Your task to perform on an android device: open app "ZOOM Cloud Meetings" (install if not already installed) and go to login screen Image 0: 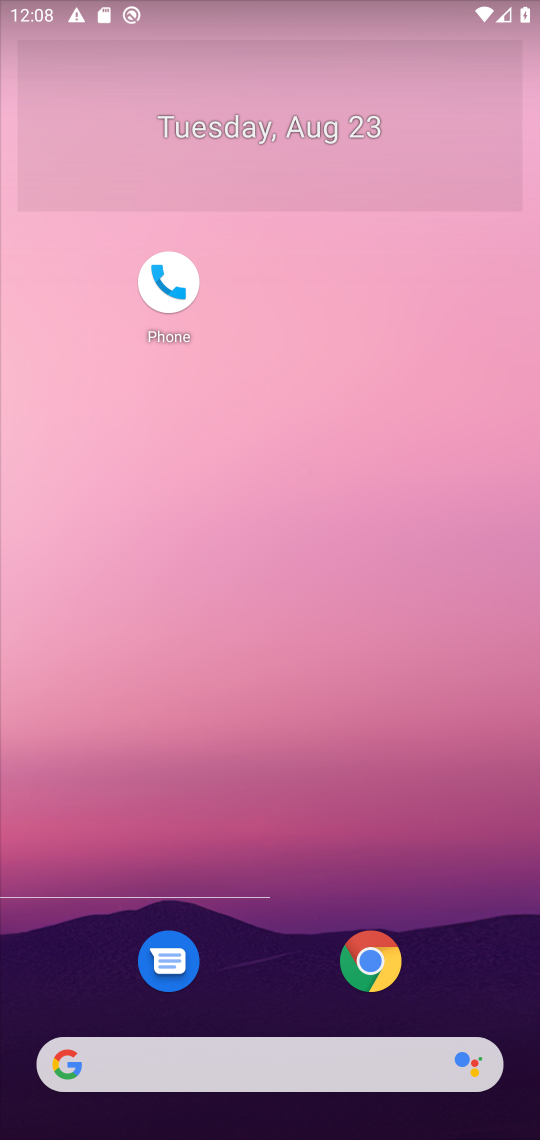
Step 0: drag from (291, 1012) to (431, 59)
Your task to perform on an android device: open app "ZOOM Cloud Meetings" (install if not already installed) and go to login screen Image 1: 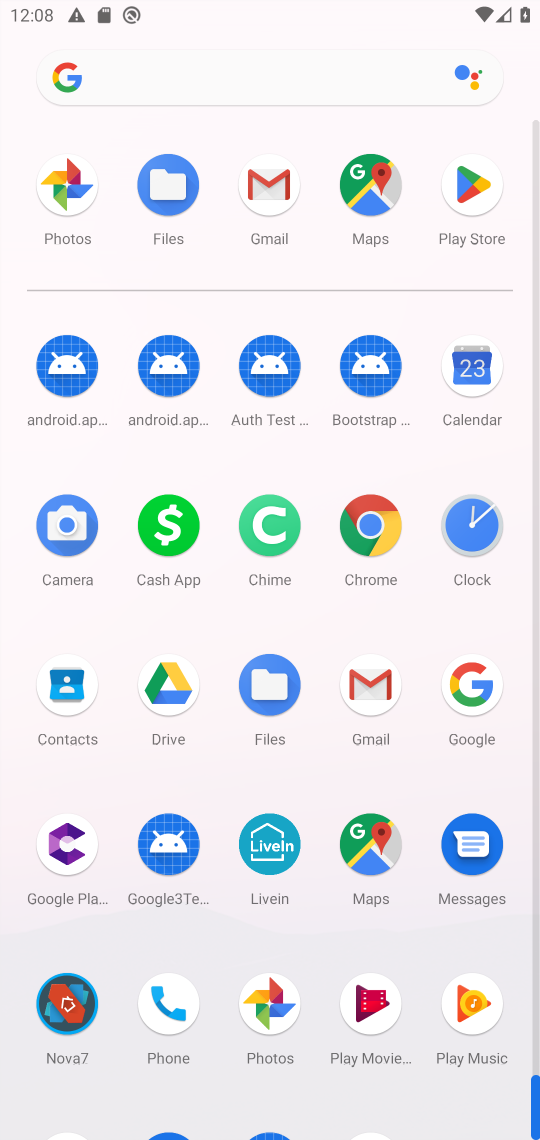
Step 1: click (477, 241)
Your task to perform on an android device: open app "ZOOM Cloud Meetings" (install if not already installed) and go to login screen Image 2: 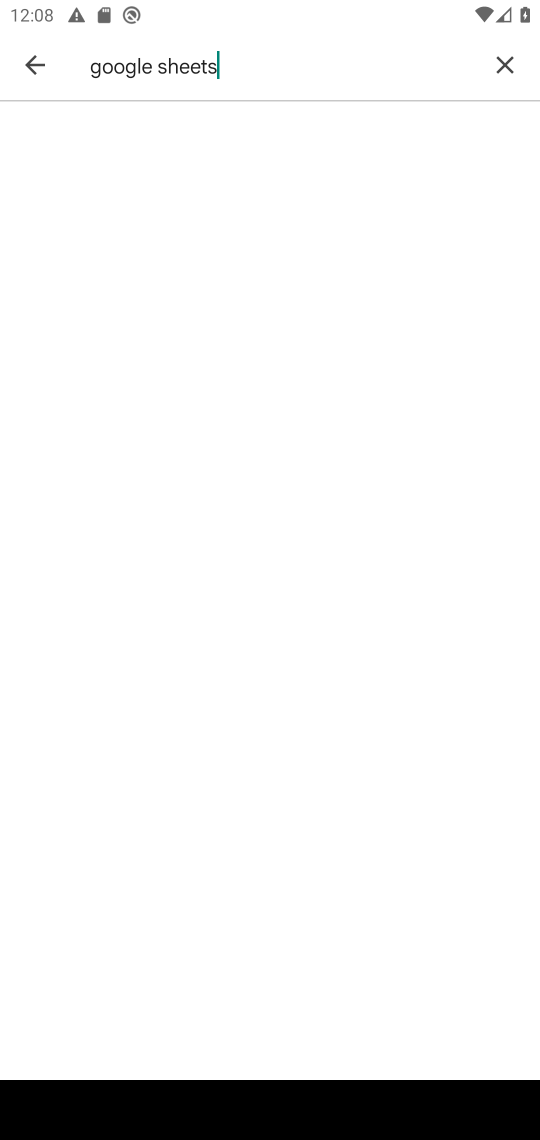
Step 2: click (491, 78)
Your task to perform on an android device: open app "ZOOM Cloud Meetings" (install if not already installed) and go to login screen Image 3: 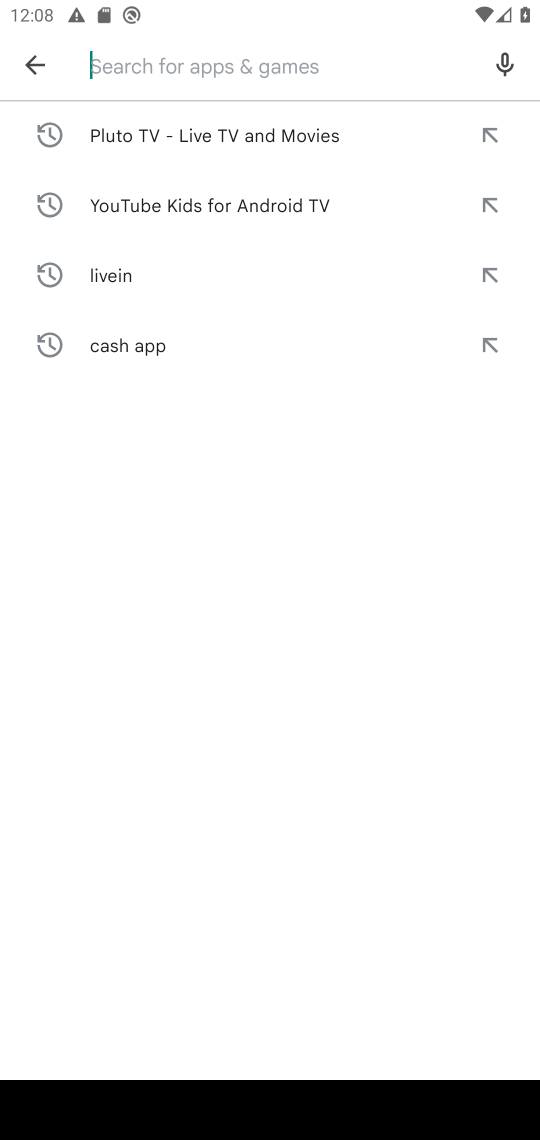
Step 3: type "zoom cloud"
Your task to perform on an android device: open app "ZOOM Cloud Meetings" (install if not already installed) and go to login screen Image 4: 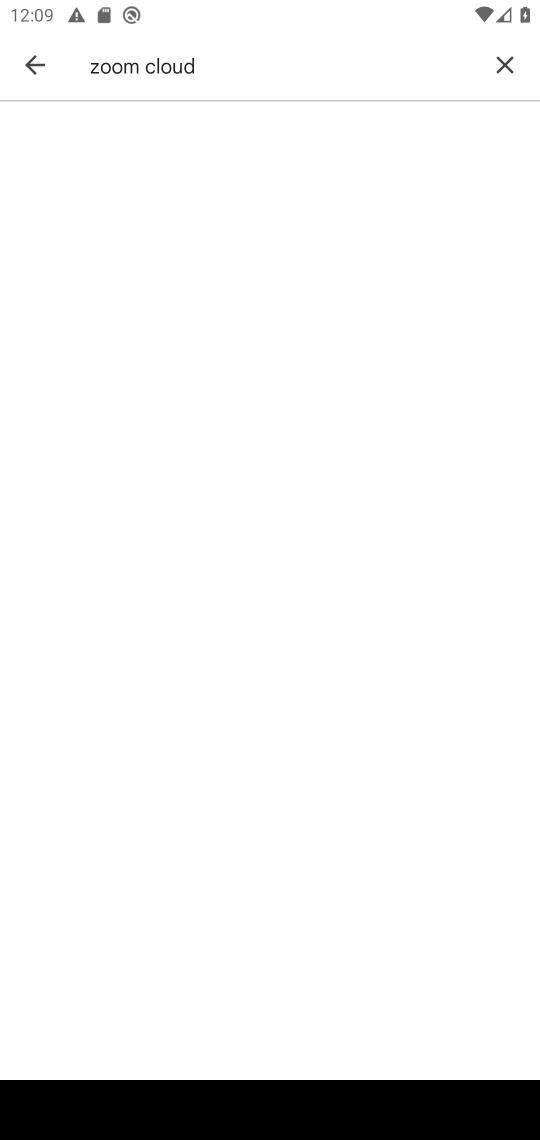
Step 4: task complete